Your task to perform on an android device: Show me popular videos on Youtube Image 0: 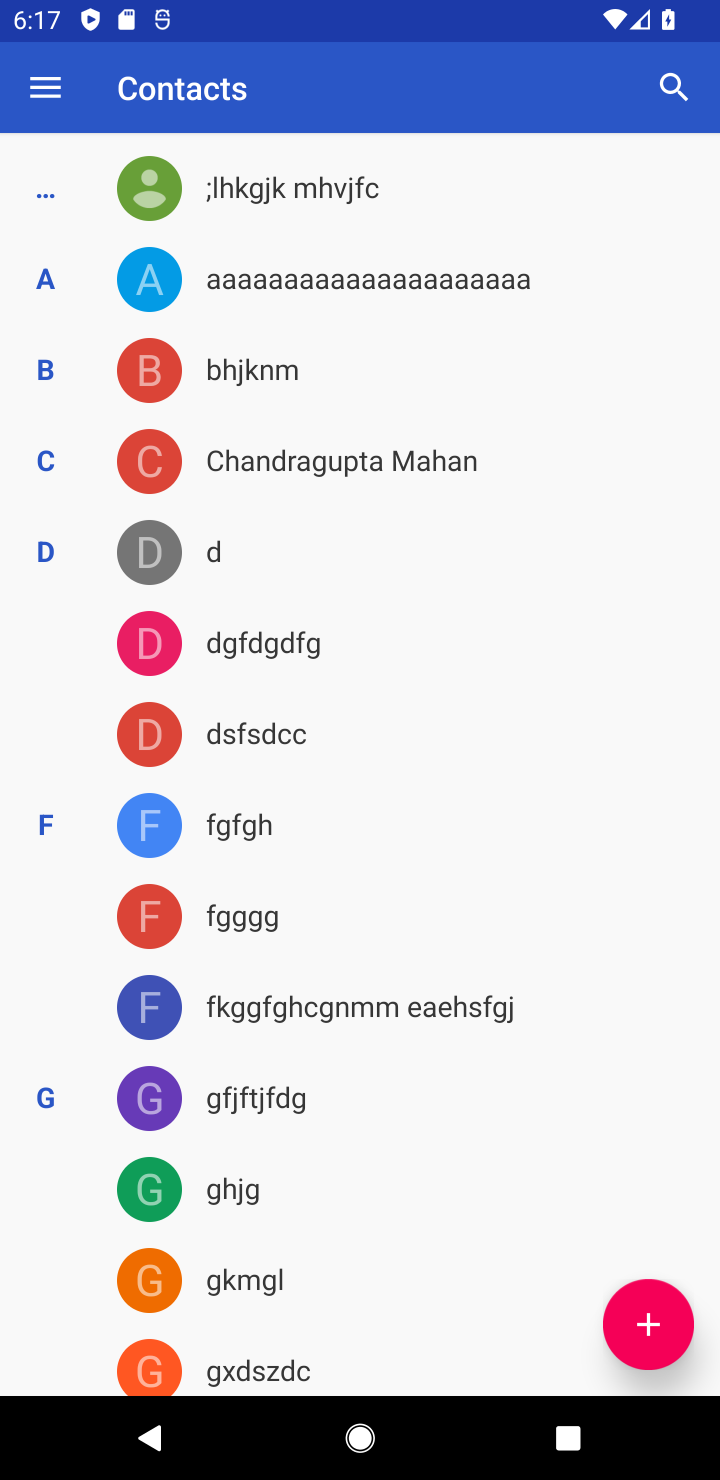
Step 0: press home button
Your task to perform on an android device: Show me popular videos on Youtube Image 1: 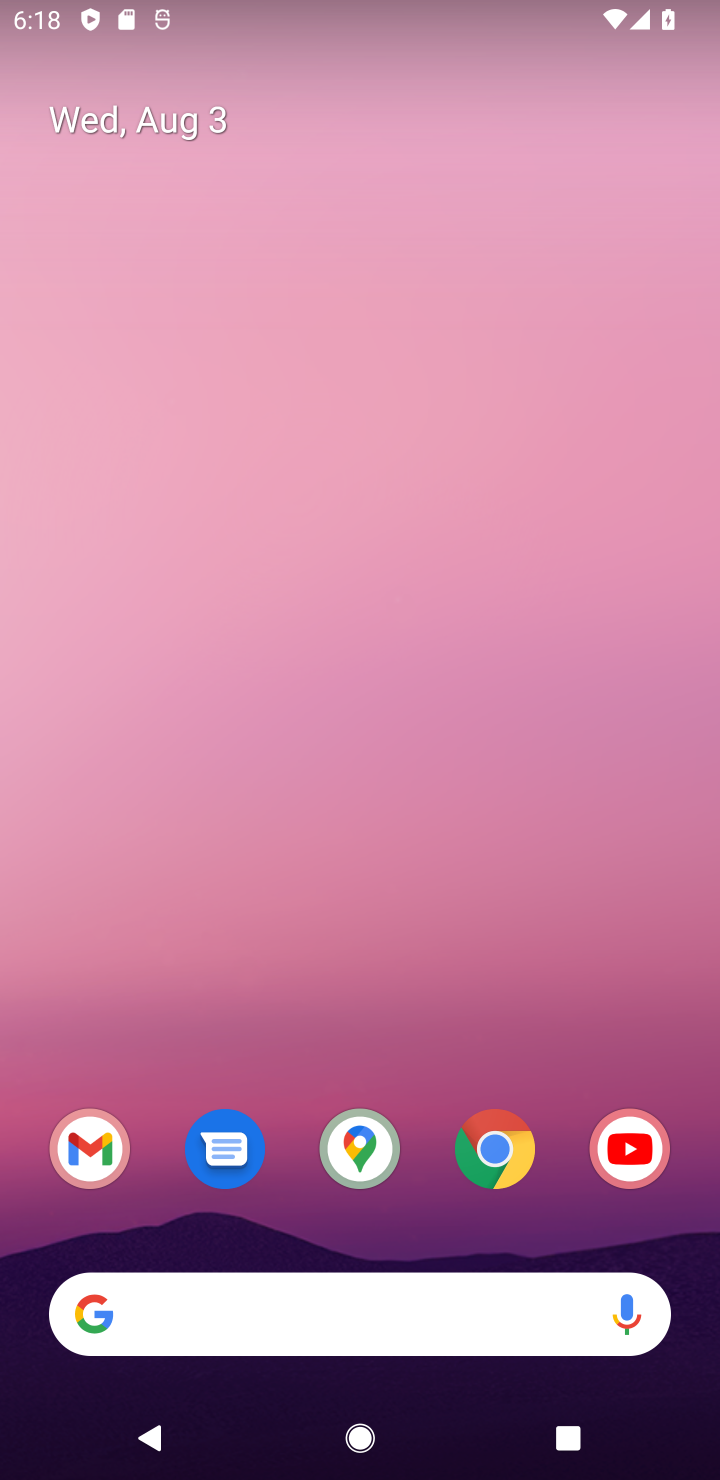
Step 1: drag from (335, 1291) to (378, 339)
Your task to perform on an android device: Show me popular videos on Youtube Image 2: 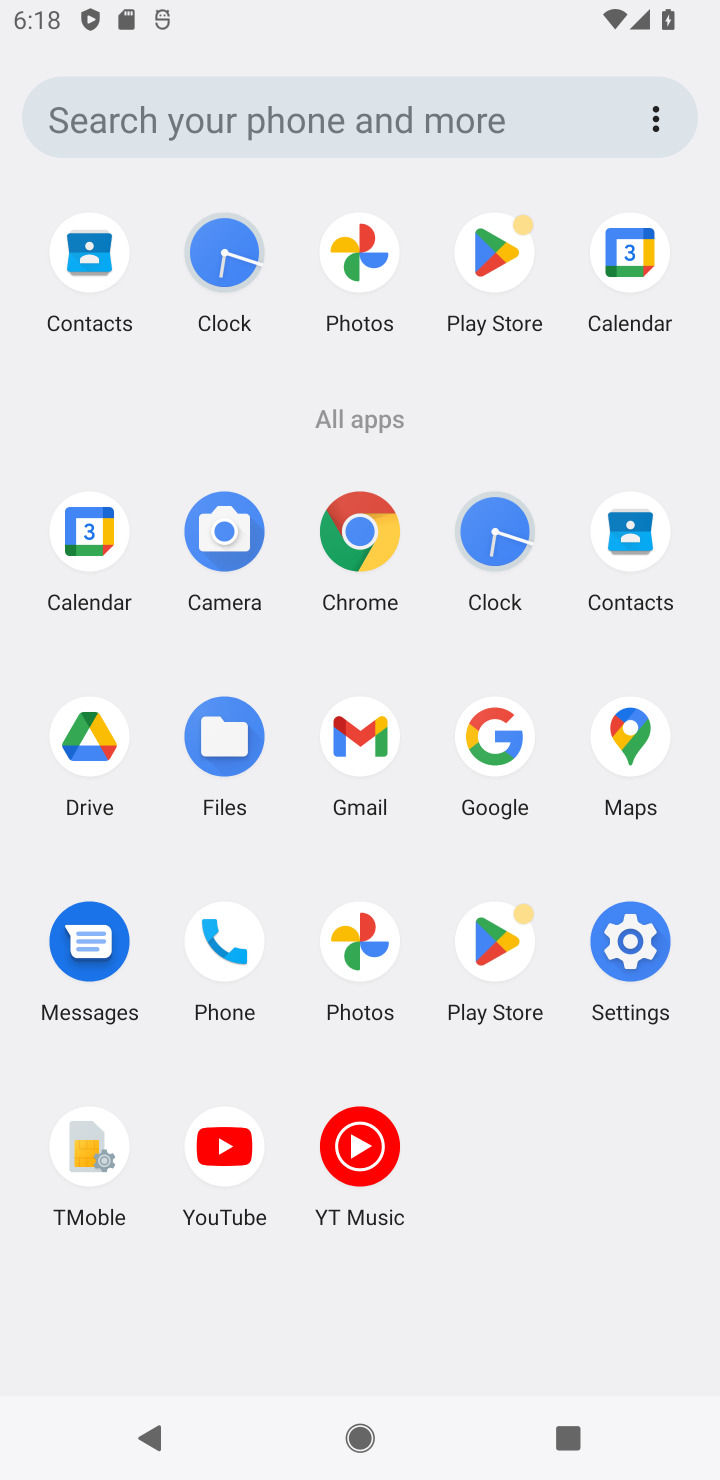
Step 2: click (203, 1161)
Your task to perform on an android device: Show me popular videos on Youtube Image 3: 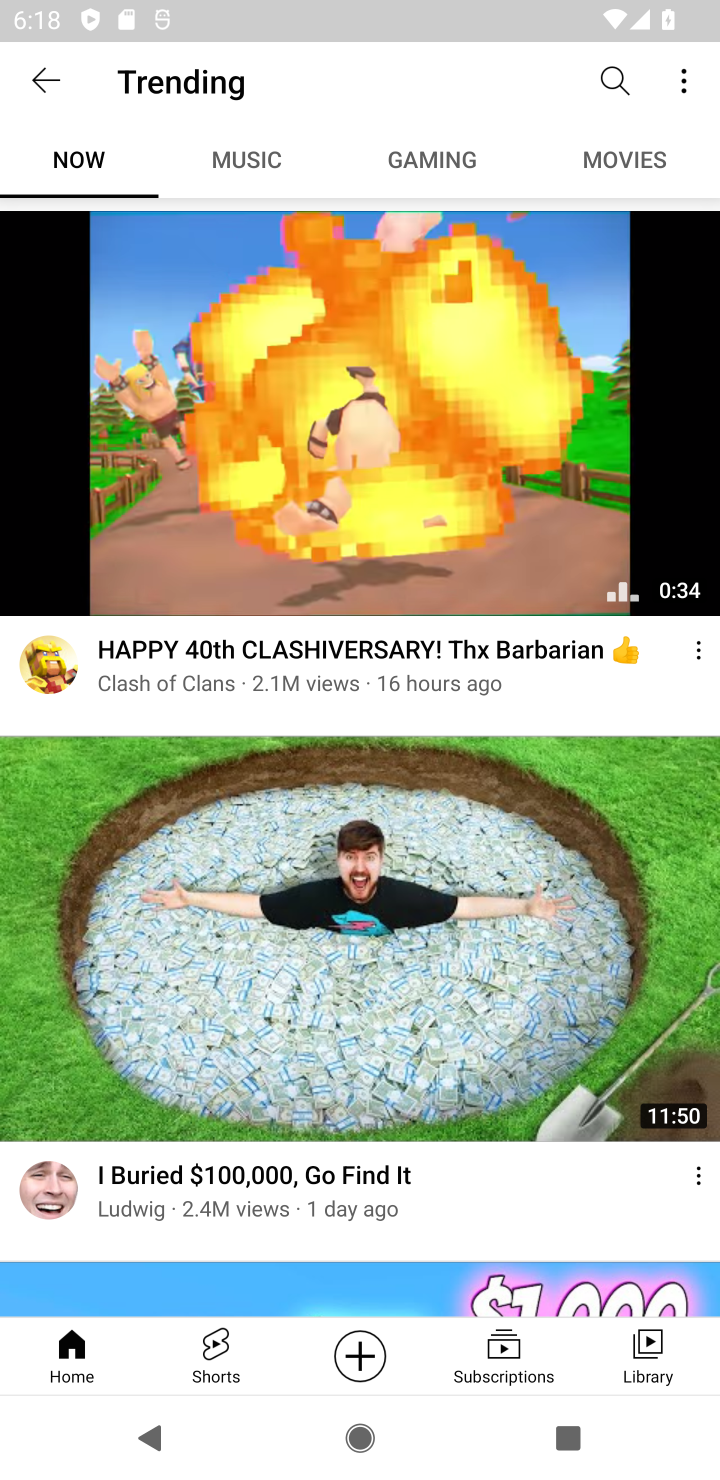
Step 3: task complete